Your task to perform on an android device: Go to battery settings Image 0: 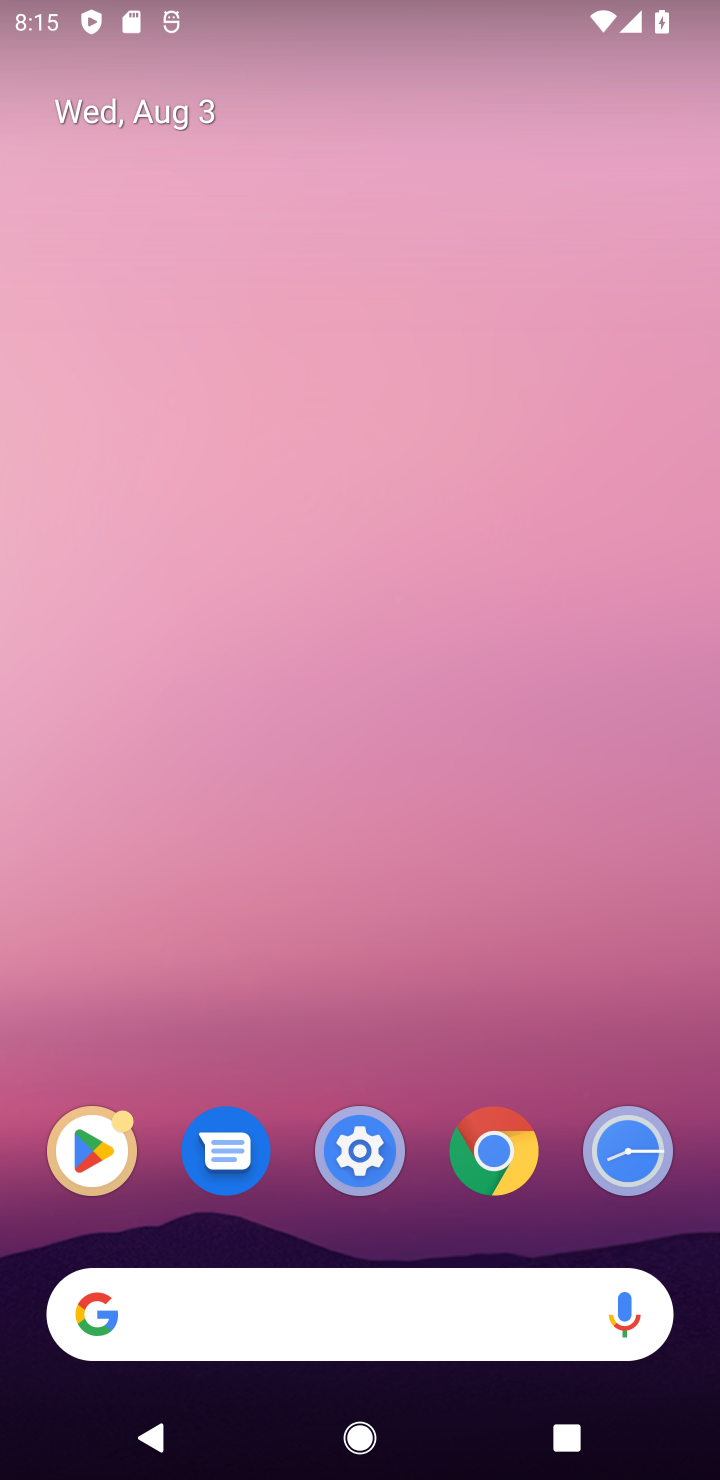
Step 0: click (366, 1147)
Your task to perform on an android device: Go to battery settings Image 1: 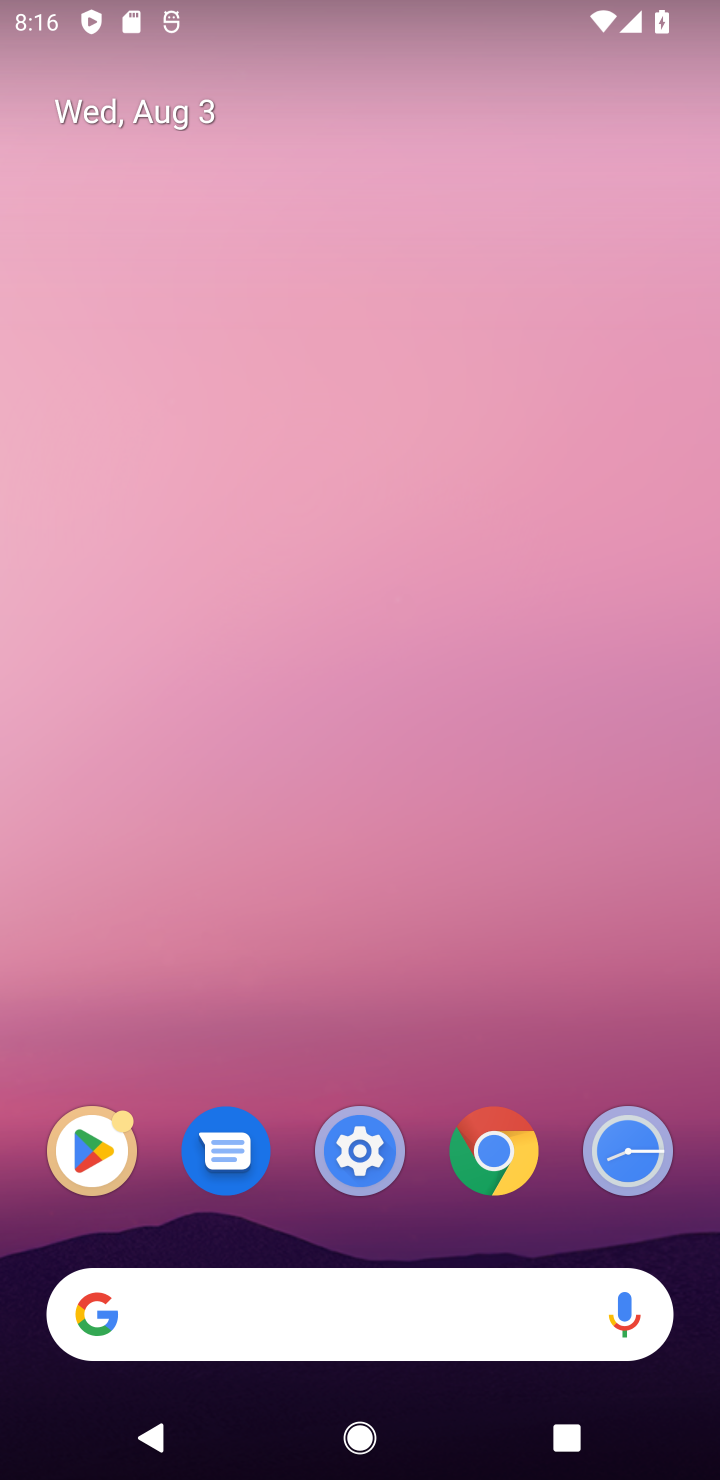
Step 1: click (366, 1150)
Your task to perform on an android device: Go to battery settings Image 2: 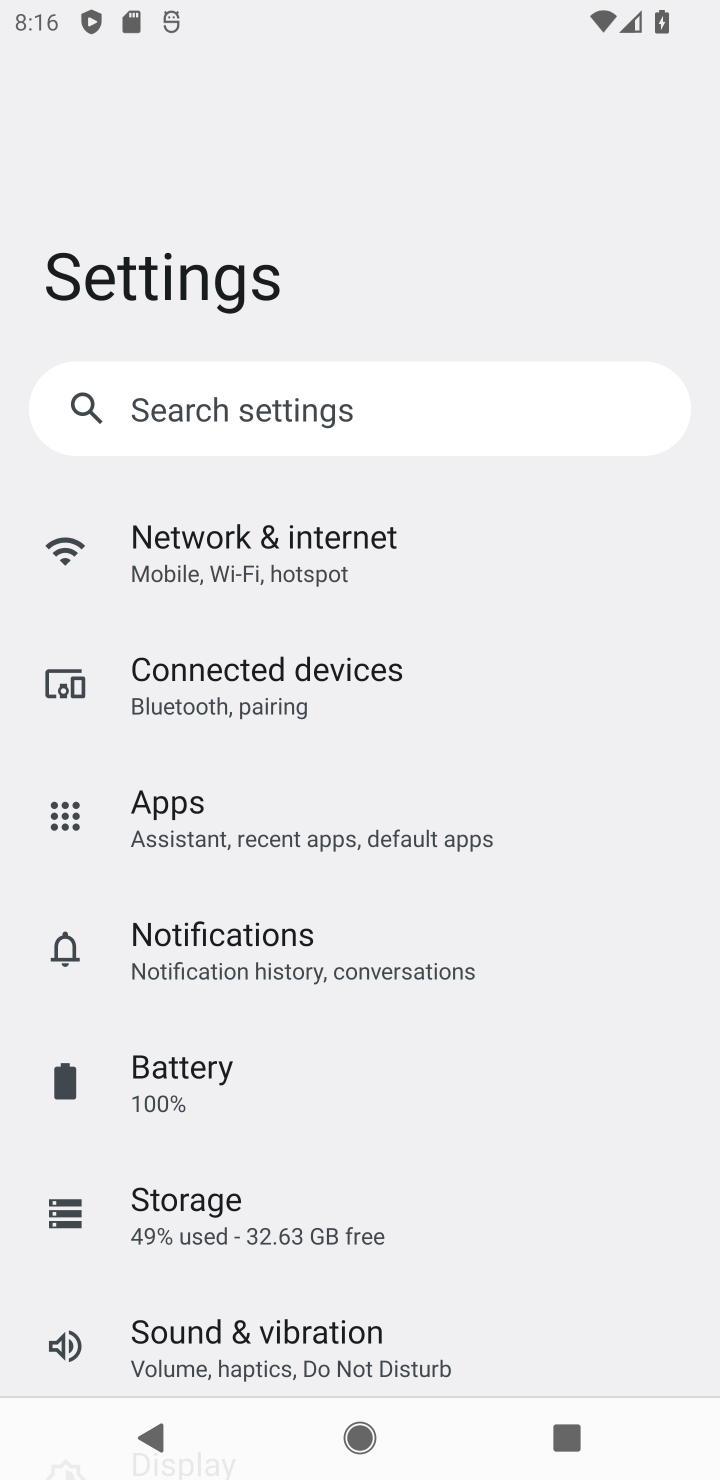
Step 2: click (216, 1081)
Your task to perform on an android device: Go to battery settings Image 3: 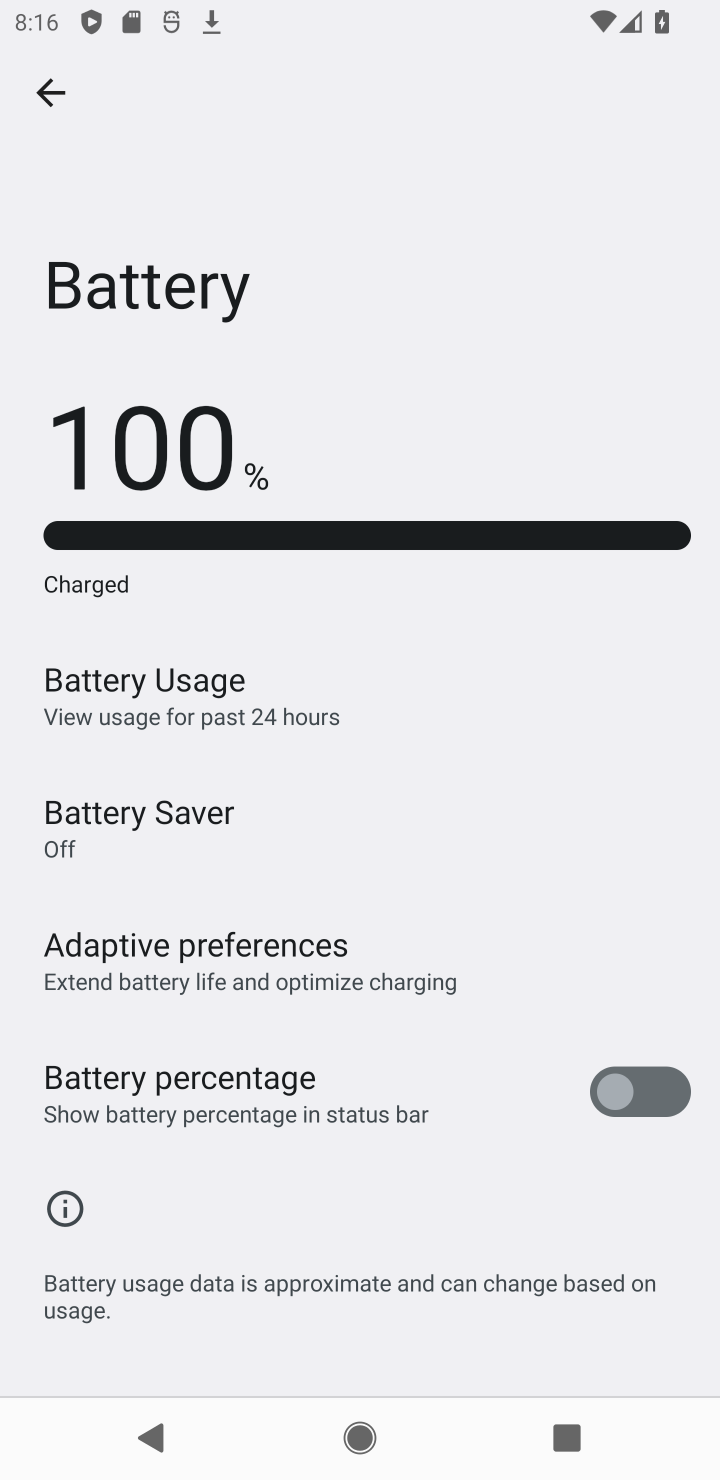
Step 3: task complete